Your task to perform on an android device: Add "macbook air" to the cart on walmart, then select checkout. Image 0: 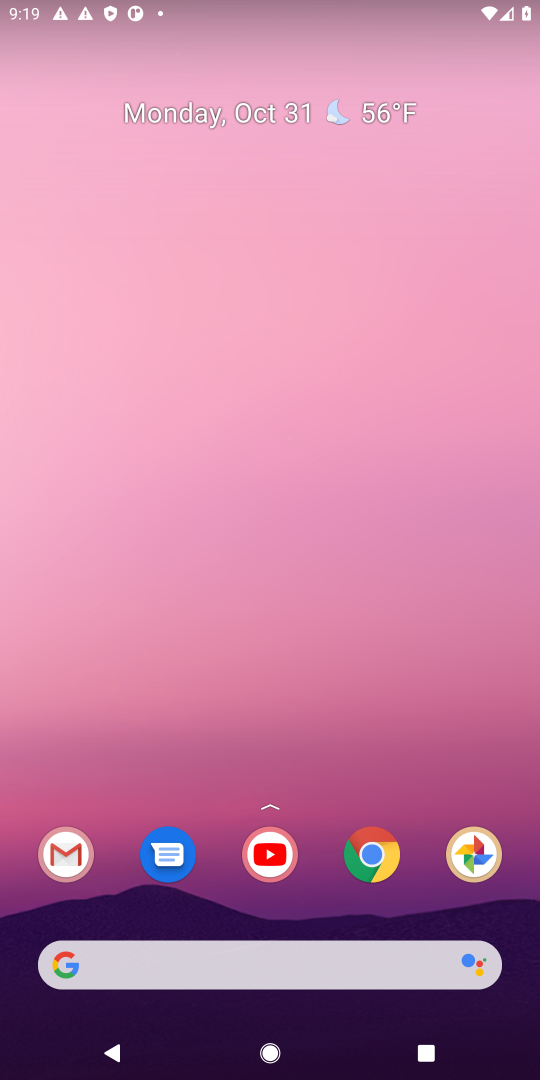
Step 0: click (259, 954)
Your task to perform on an android device: Add "macbook air" to the cart on walmart, then select checkout. Image 1: 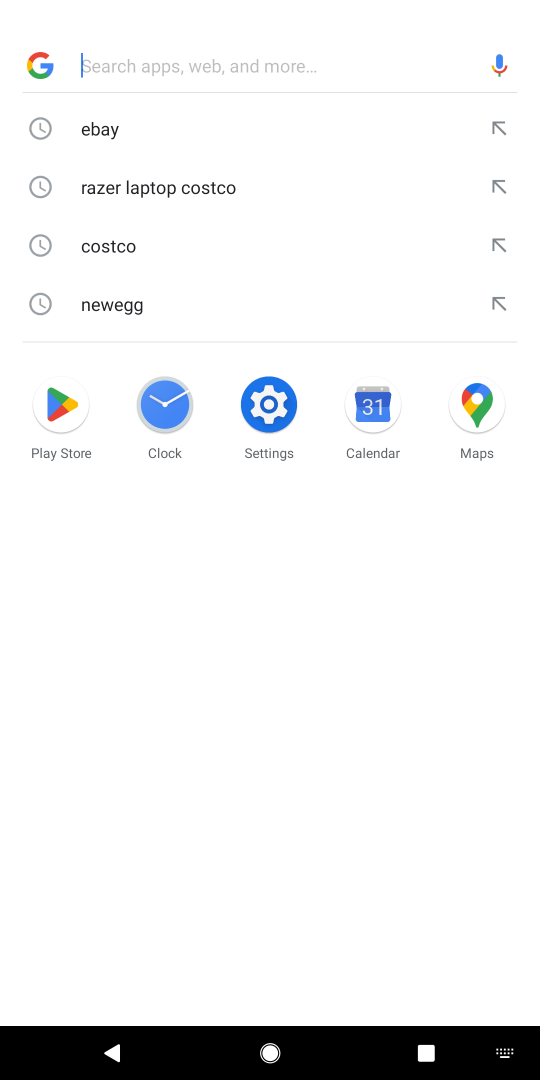
Step 1: type "macbook air"
Your task to perform on an android device: Add "macbook air" to the cart on walmart, then select checkout. Image 2: 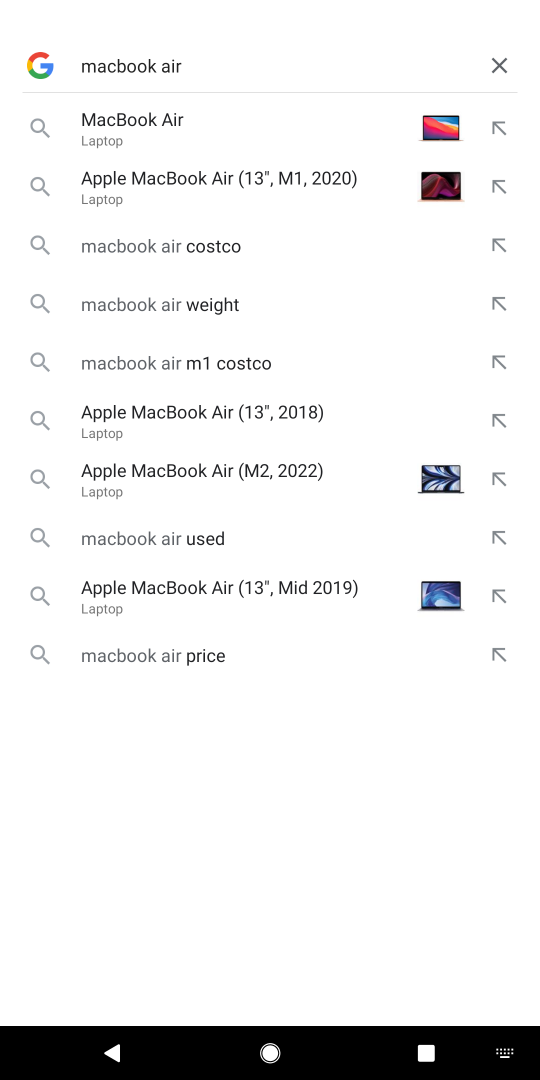
Step 2: click (279, 136)
Your task to perform on an android device: Add "macbook air" to the cart on walmart, then select checkout. Image 3: 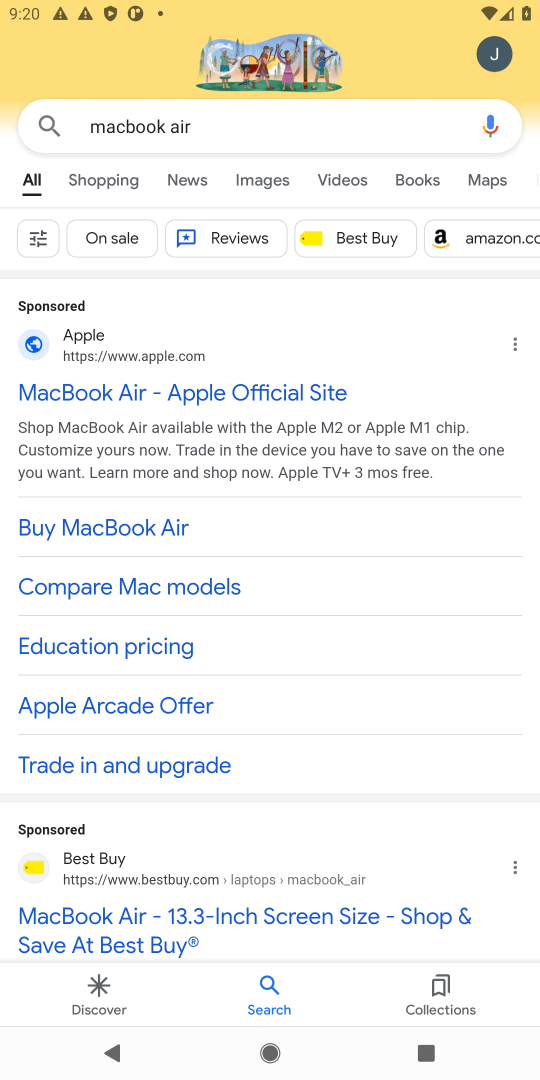
Step 3: task complete